Your task to perform on an android device: Open Google Image 0: 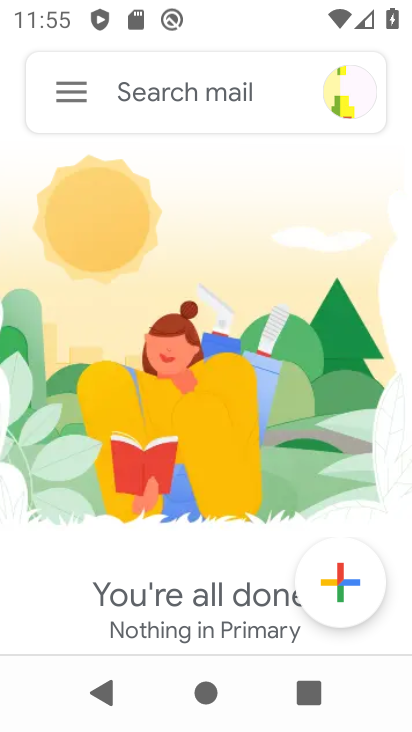
Step 0: press home button
Your task to perform on an android device: Open Google Image 1: 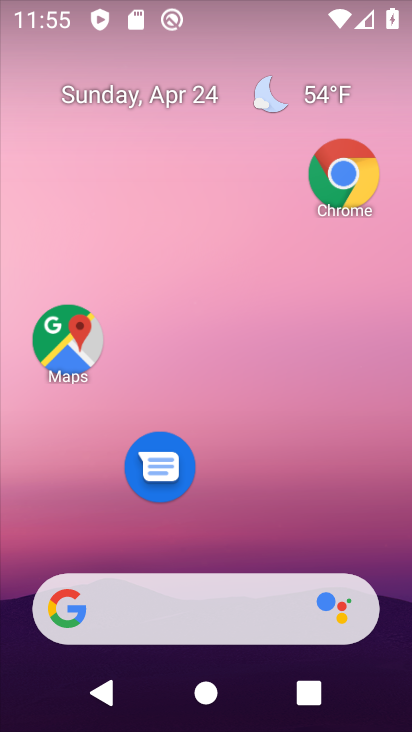
Step 1: drag from (221, 499) to (179, 138)
Your task to perform on an android device: Open Google Image 2: 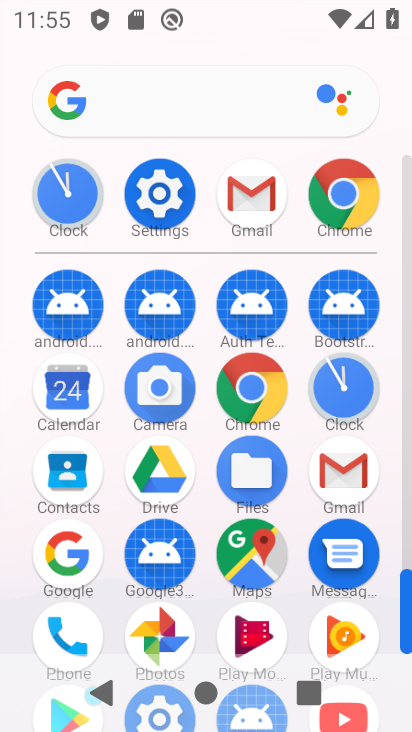
Step 2: click (72, 545)
Your task to perform on an android device: Open Google Image 3: 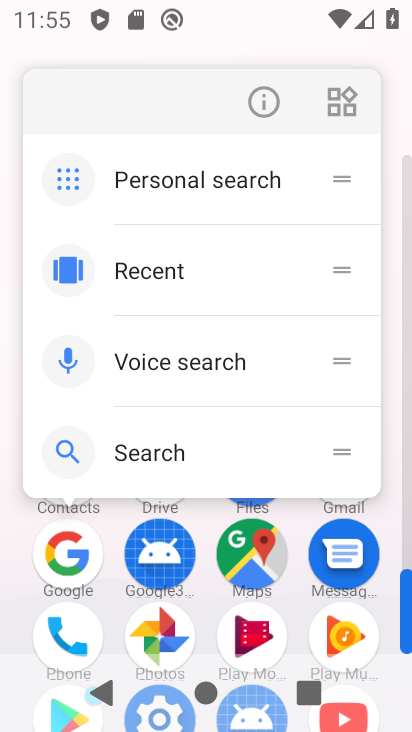
Step 3: click (270, 99)
Your task to perform on an android device: Open Google Image 4: 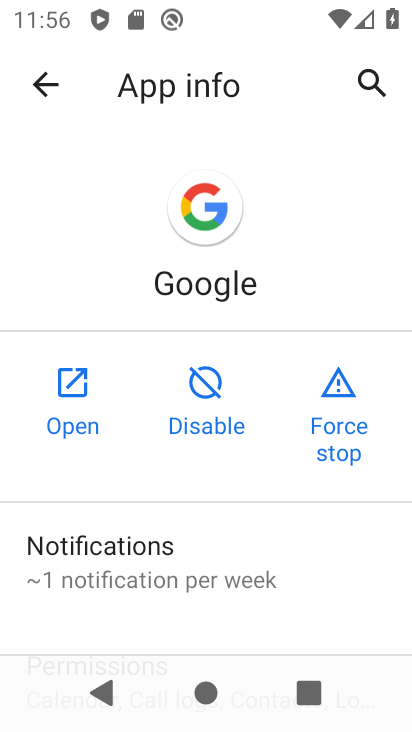
Step 4: click (87, 372)
Your task to perform on an android device: Open Google Image 5: 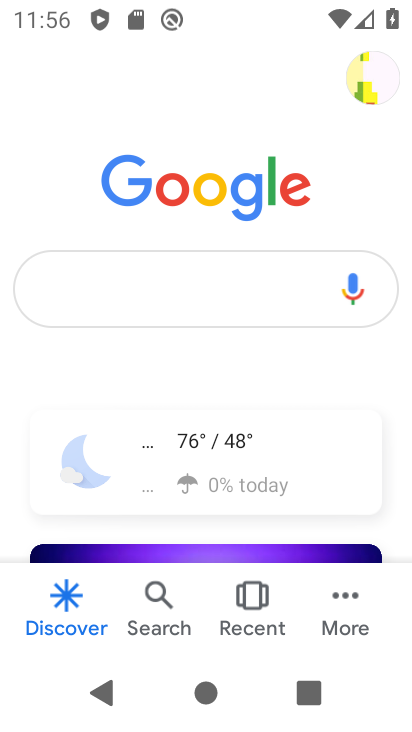
Step 5: task complete